Your task to perform on an android device: Open the calendar app, open the side menu, and click the "Day" option Image 0: 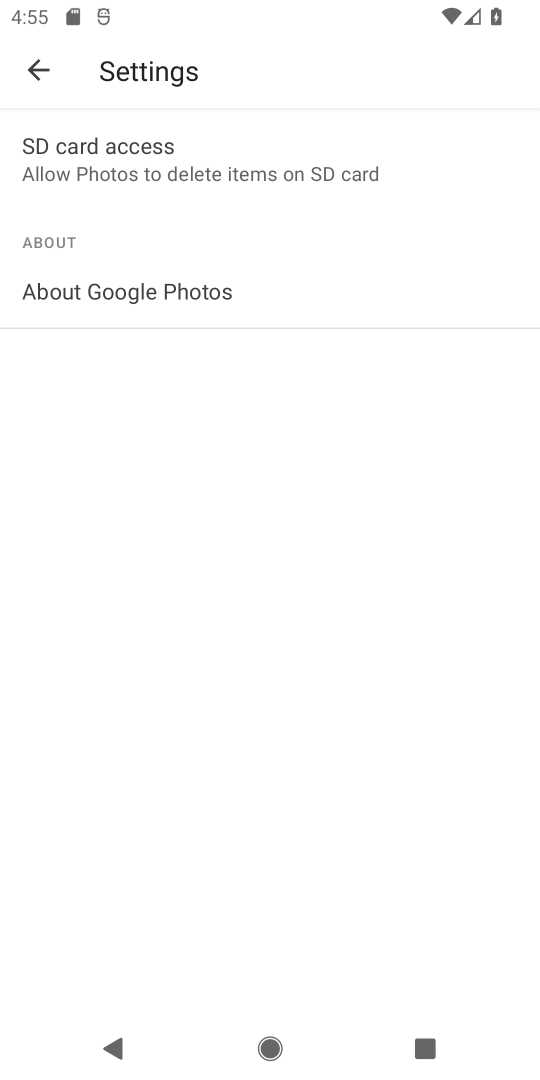
Step 0: press home button
Your task to perform on an android device: Open the calendar app, open the side menu, and click the "Day" option Image 1: 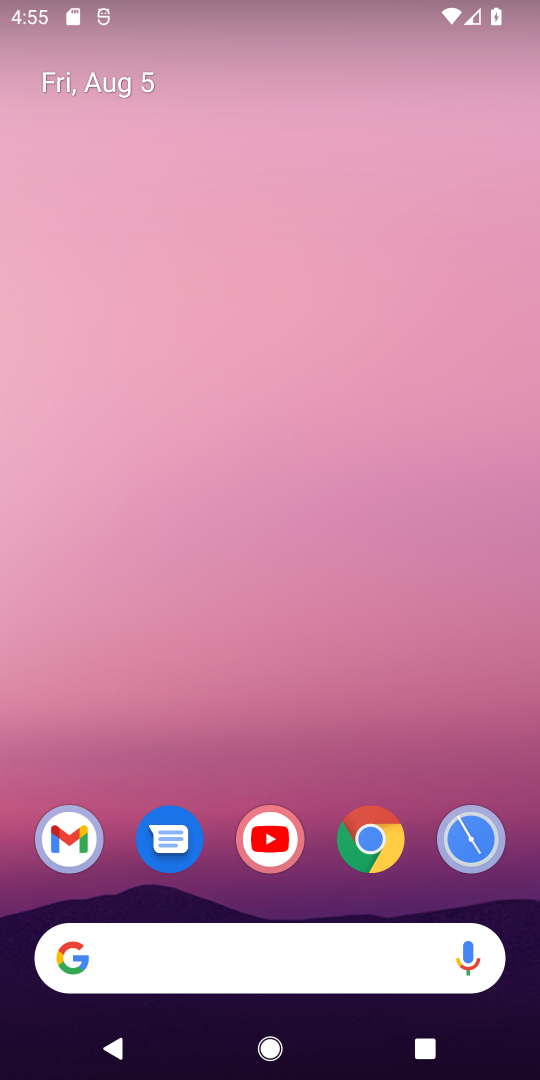
Step 1: drag from (224, 792) to (228, 230)
Your task to perform on an android device: Open the calendar app, open the side menu, and click the "Day" option Image 2: 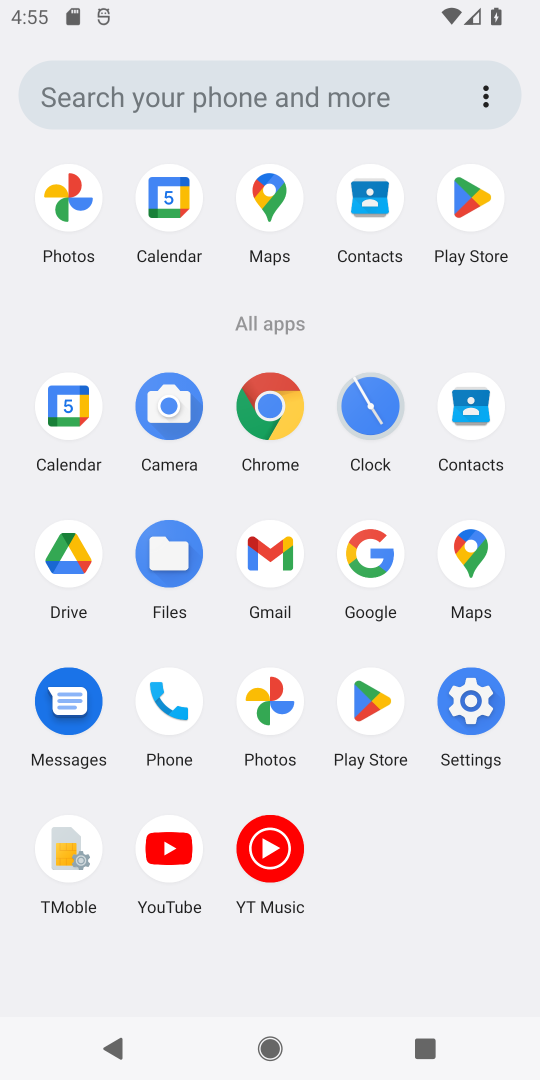
Step 2: click (58, 430)
Your task to perform on an android device: Open the calendar app, open the side menu, and click the "Day" option Image 3: 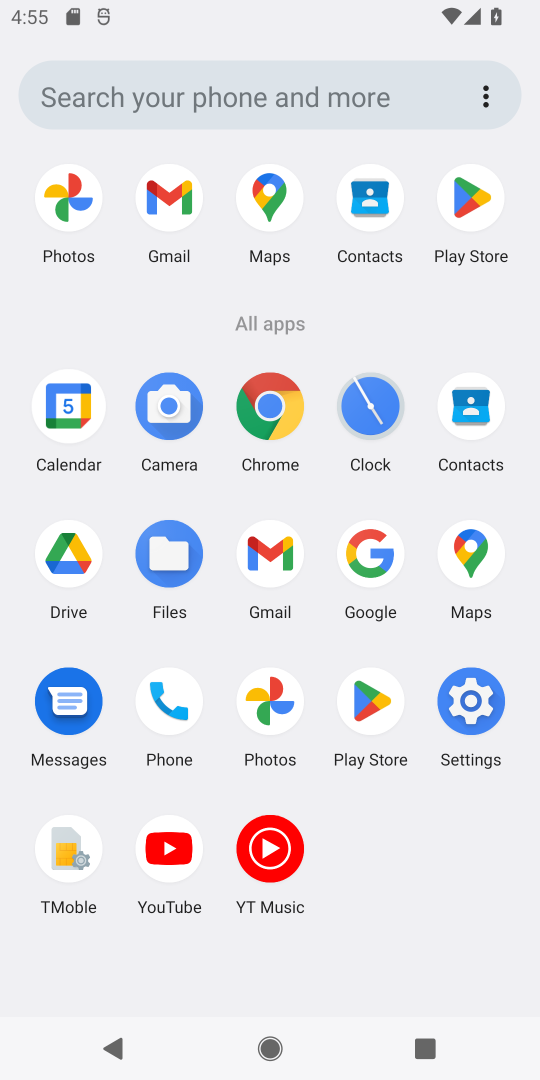
Step 3: click (72, 405)
Your task to perform on an android device: Open the calendar app, open the side menu, and click the "Day" option Image 4: 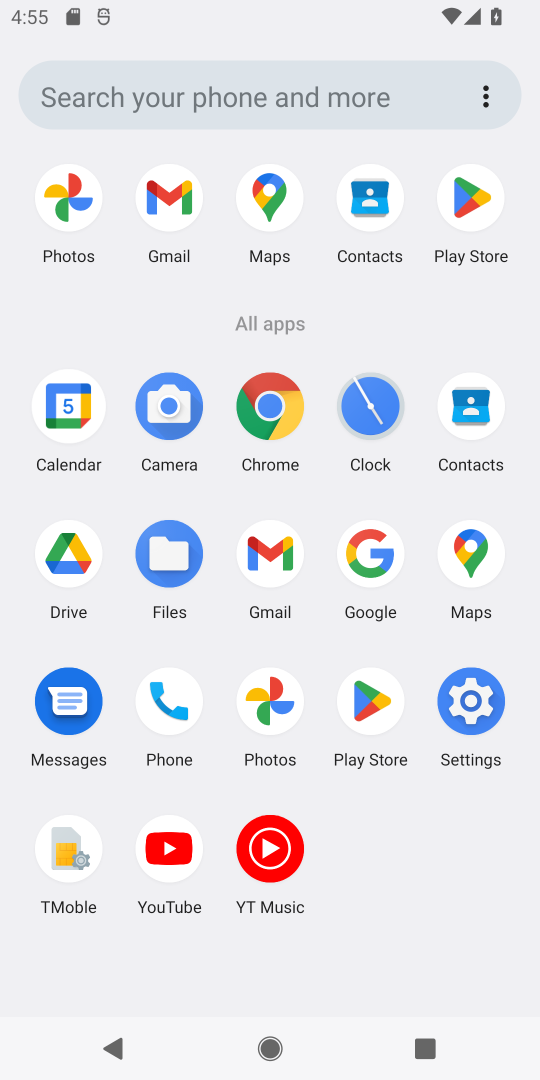
Step 4: click (72, 405)
Your task to perform on an android device: Open the calendar app, open the side menu, and click the "Day" option Image 5: 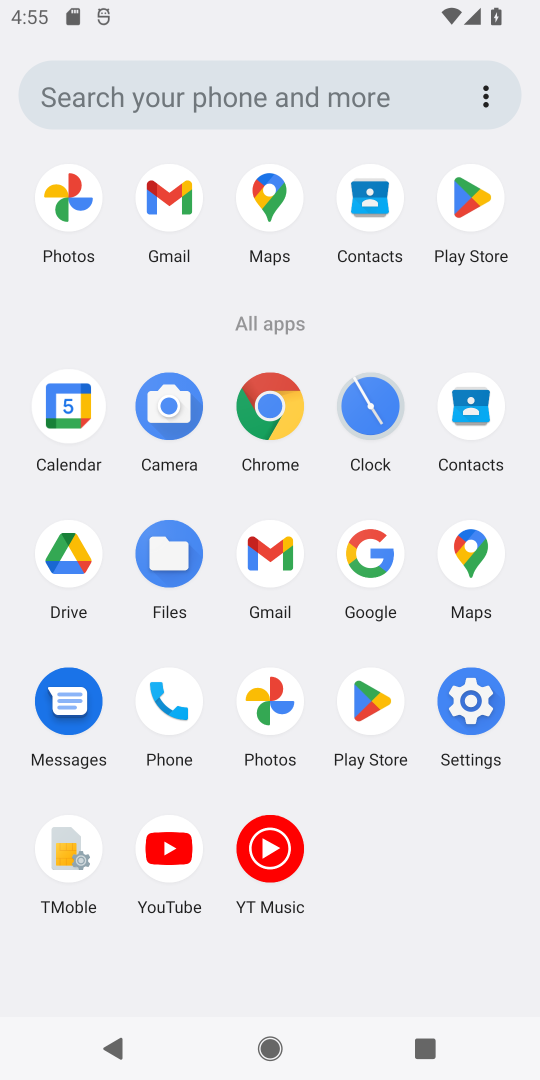
Step 5: click (72, 405)
Your task to perform on an android device: Open the calendar app, open the side menu, and click the "Day" option Image 6: 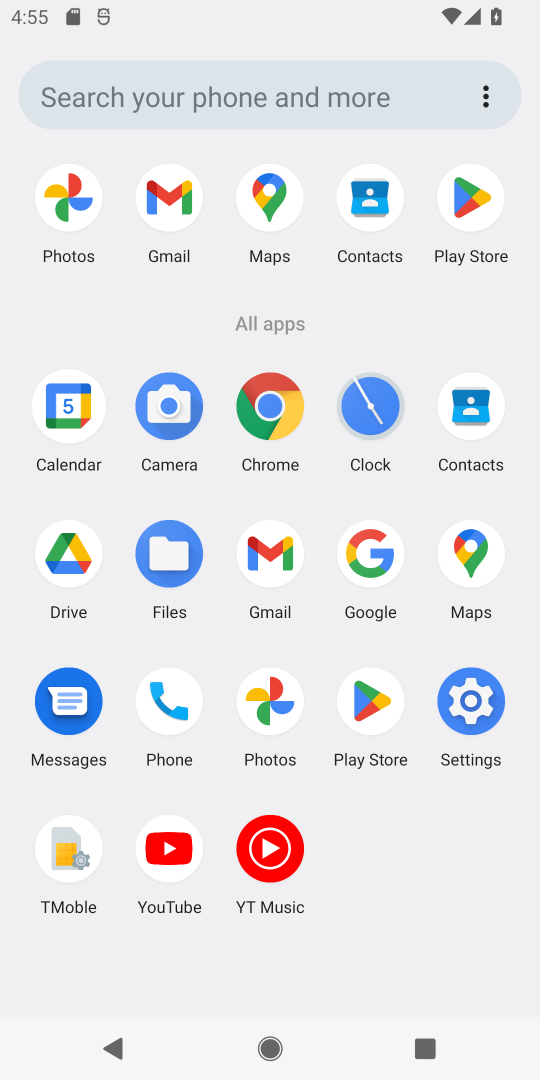
Step 6: click (72, 405)
Your task to perform on an android device: Open the calendar app, open the side menu, and click the "Day" option Image 7: 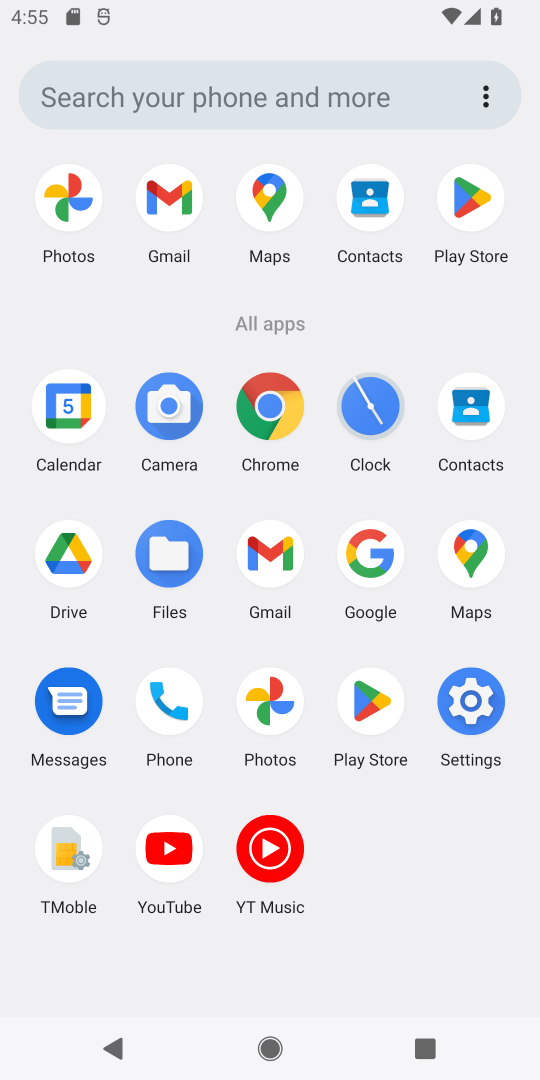
Step 7: click (72, 405)
Your task to perform on an android device: Open the calendar app, open the side menu, and click the "Day" option Image 8: 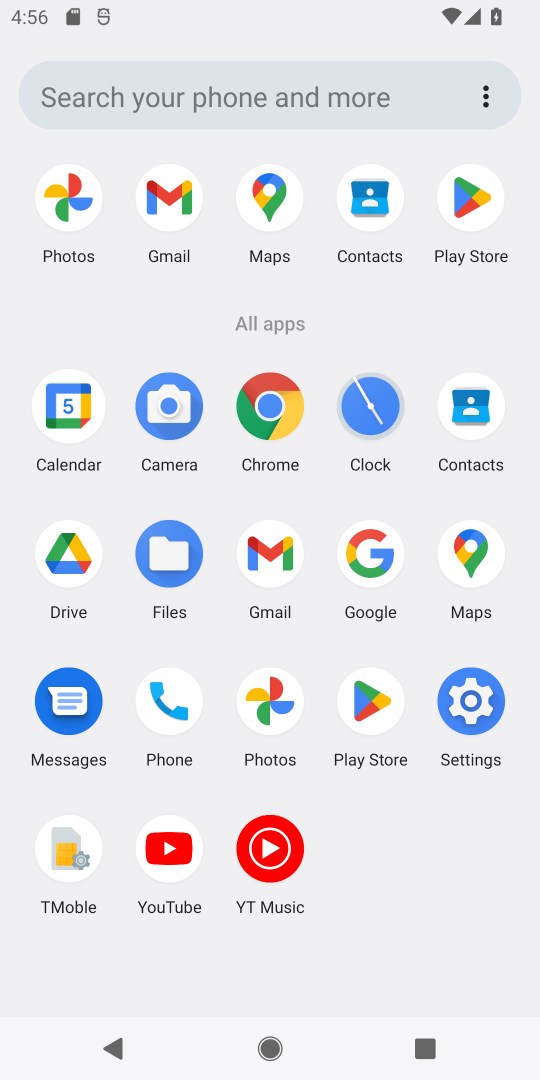
Step 8: click (84, 429)
Your task to perform on an android device: Open the calendar app, open the side menu, and click the "Day" option Image 9: 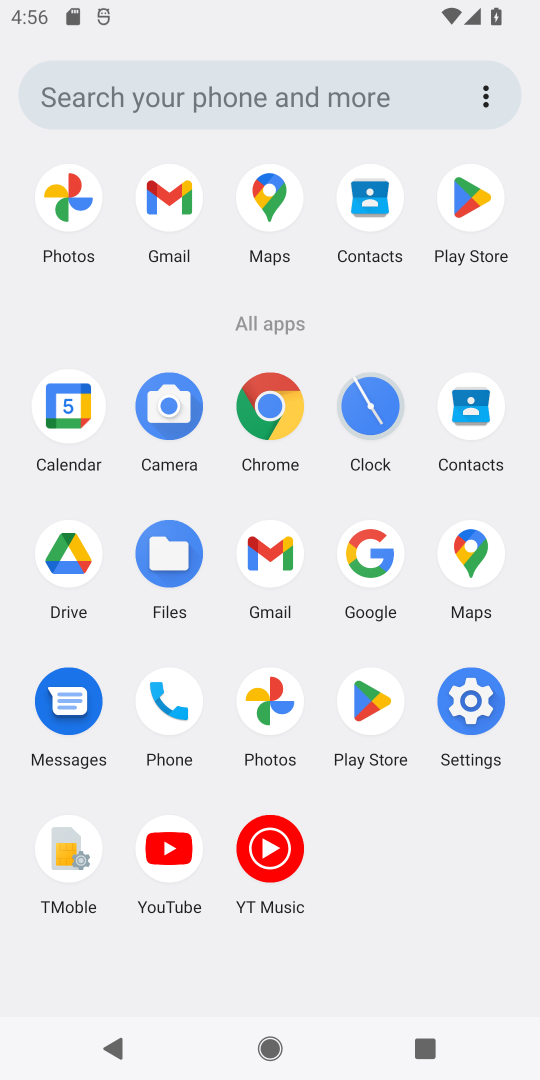
Step 9: click (71, 418)
Your task to perform on an android device: Open the calendar app, open the side menu, and click the "Day" option Image 10: 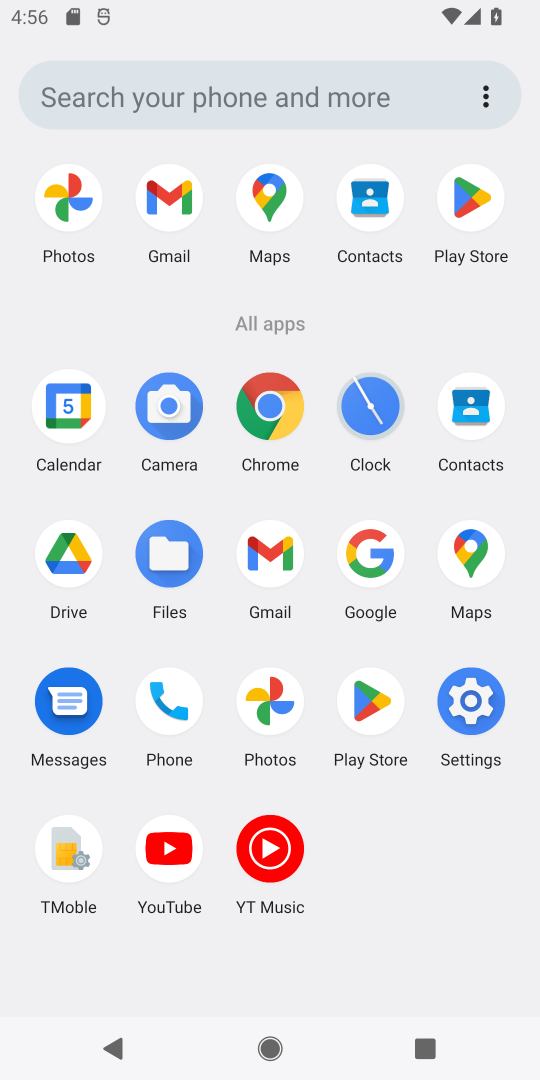
Step 10: click (59, 416)
Your task to perform on an android device: Open the calendar app, open the side menu, and click the "Day" option Image 11: 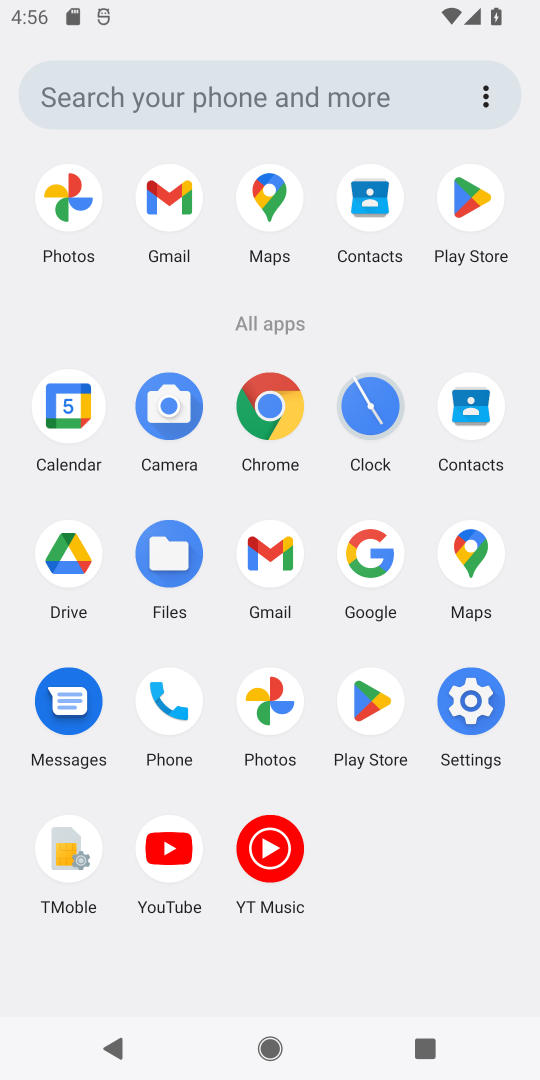
Step 11: click (58, 395)
Your task to perform on an android device: Open the calendar app, open the side menu, and click the "Day" option Image 12: 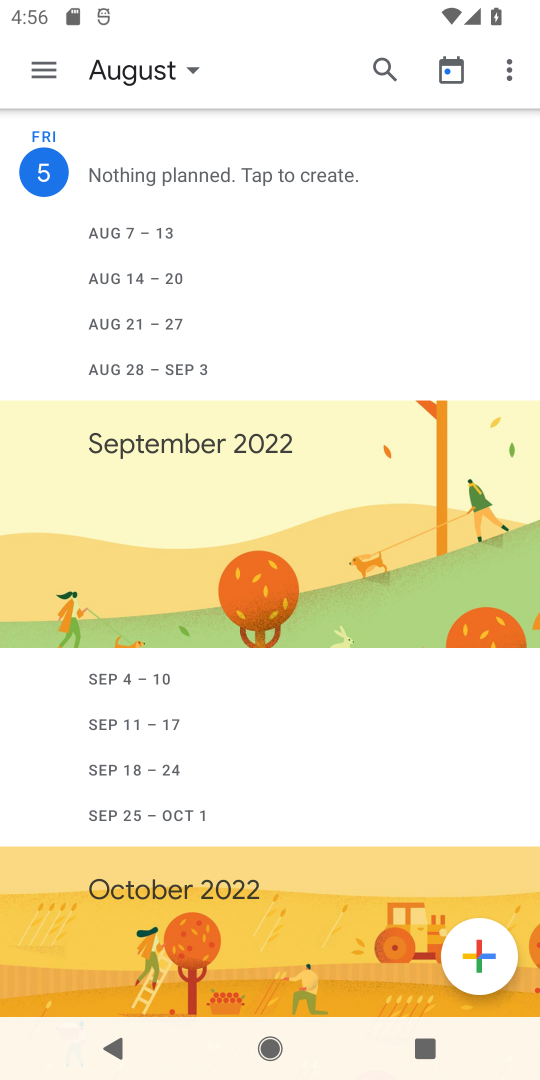
Step 12: click (45, 59)
Your task to perform on an android device: Open the calendar app, open the side menu, and click the "Day" option Image 13: 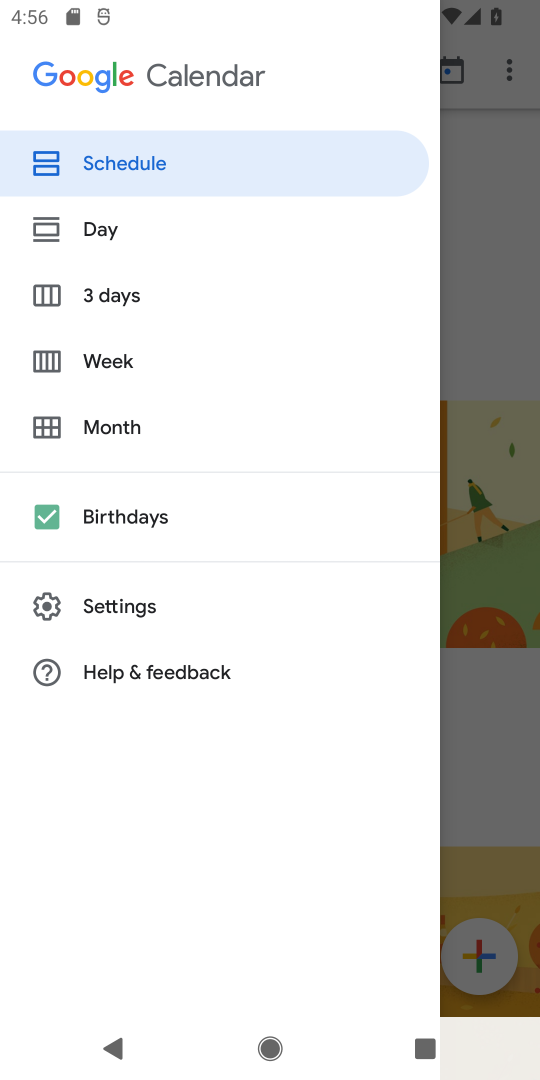
Step 13: click (129, 220)
Your task to perform on an android device: Open the calendar app, open the side menu, and click the "Day" option Image 14: 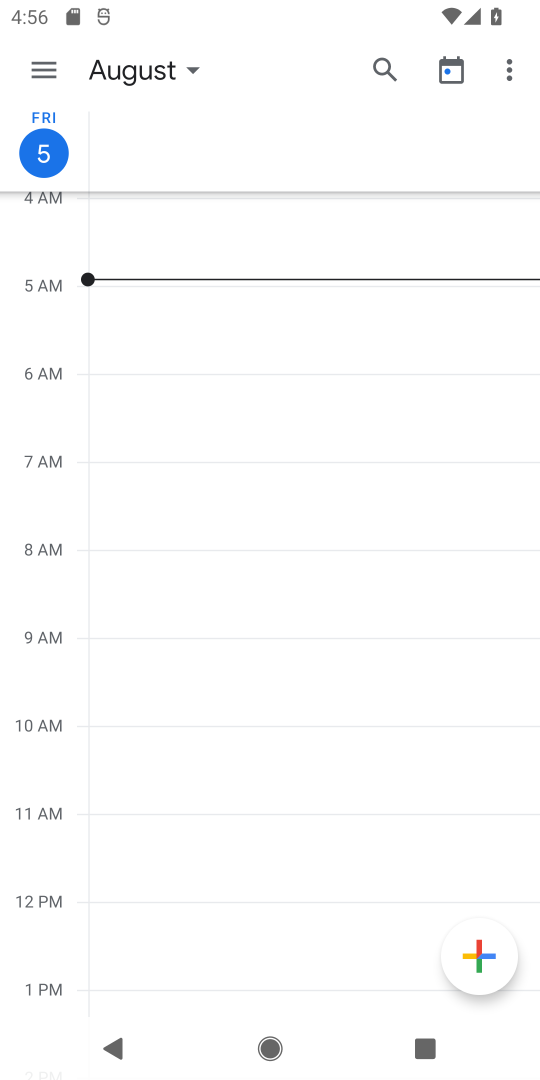
Step 14: task complete